Your task to perform on an android device: empty trash in google photos Image 0: 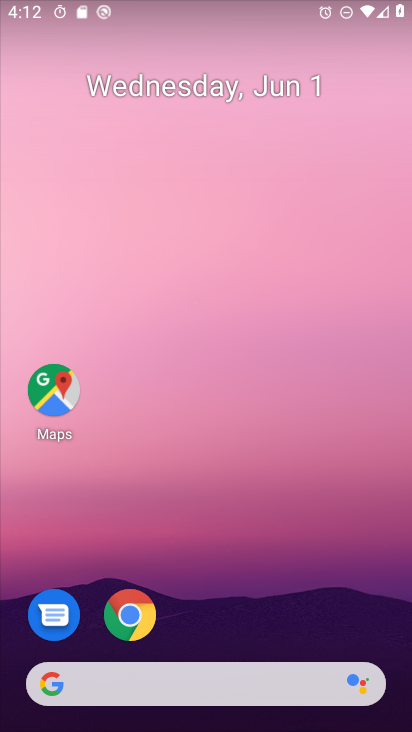
Step 0: drag from (261, 703) to (276, 5)
Your task to perform on an android device: empty trash in google photos Image 1: 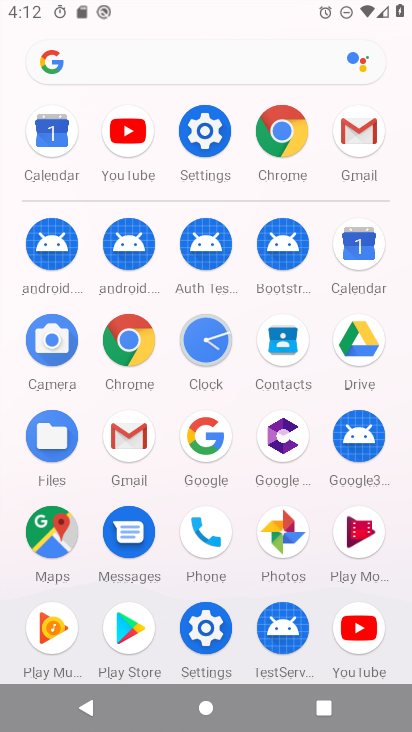
Step 1: click (297, 526)
Your task to perform on an android device: empty trash in google photos Image 2: 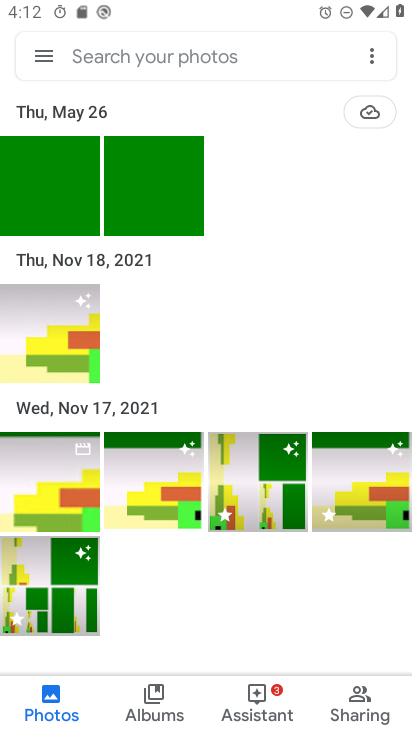
Step 2: click (37, 50)
Your task to perform on an android device: empty trash in google photos Image 3: 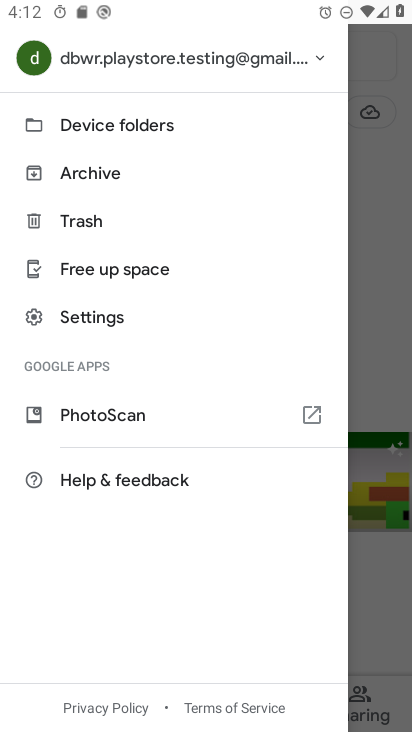
Step 3: click (67, 226)
Your task to perform on an android device: empty trash in google photos Image 4: 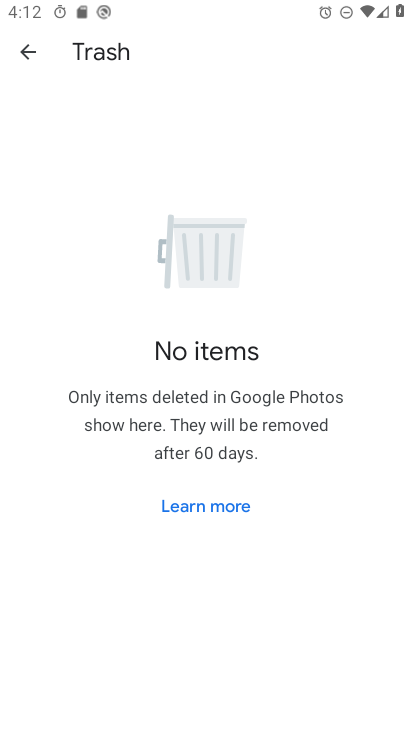
Step 4: task complete